Your task to perform on an android device: Search for Italian restaurants on Maps Image 0: 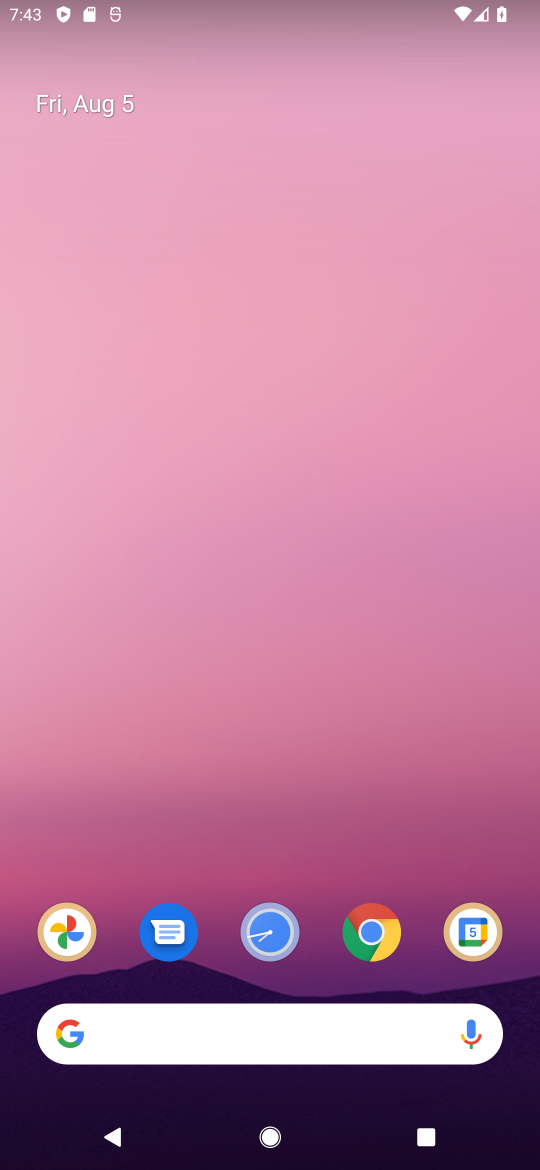
Step 0: drag from (346, 618) to (367, 22)
Your task to perform on an android device: Search for Italian restaurants on Maps Image 1: 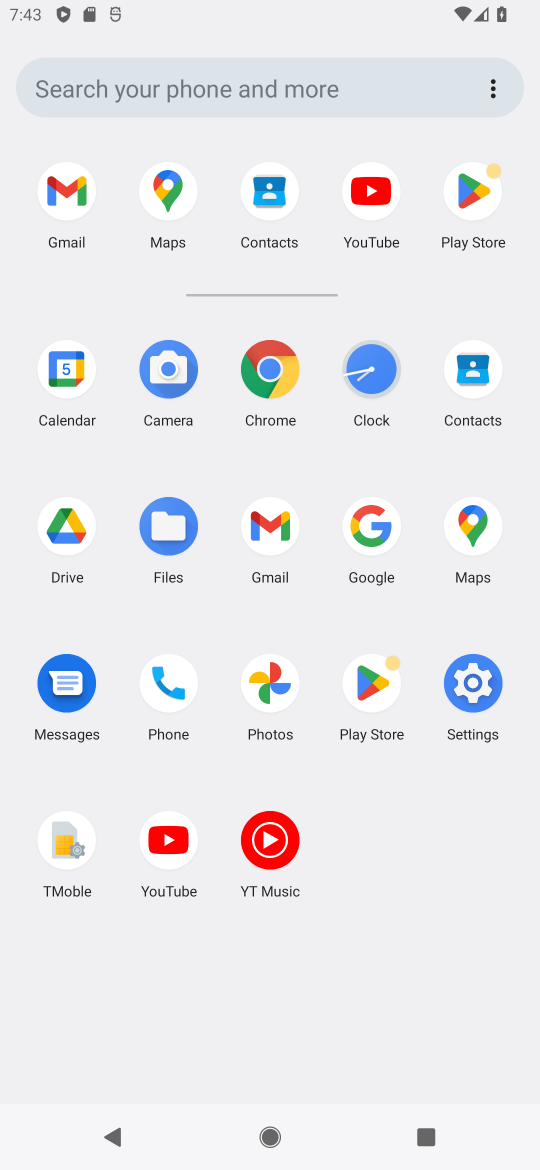
Step 1: click (476, 523)
Your task to perform on an android device: Search for Italian restaurants on Maps Image 2: 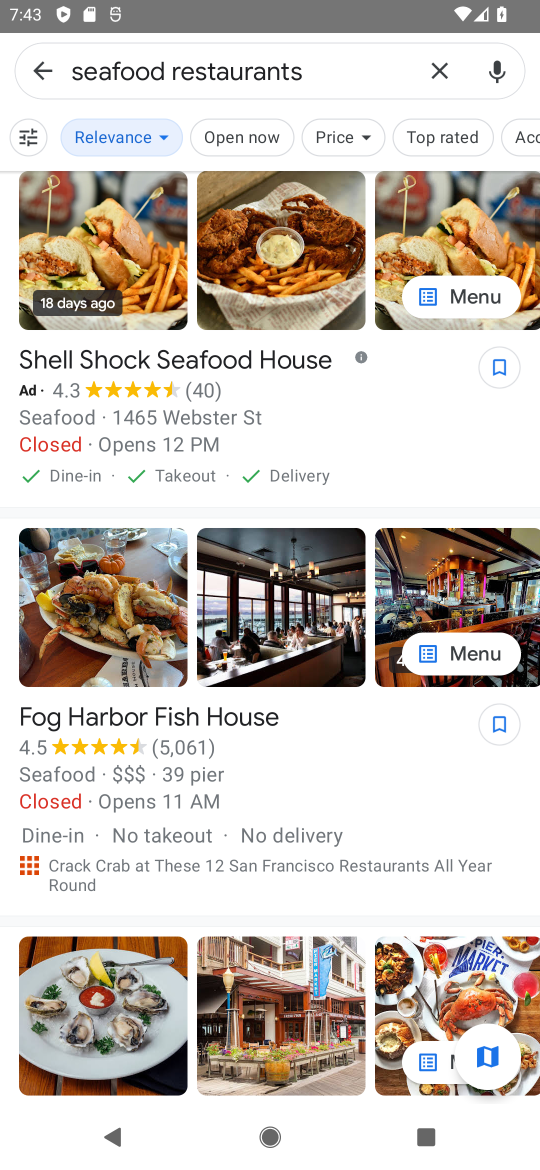
Step 2: click (254, 83)
Your task to perform on an android device: Search for Italian restaurants on Maps Image 3: 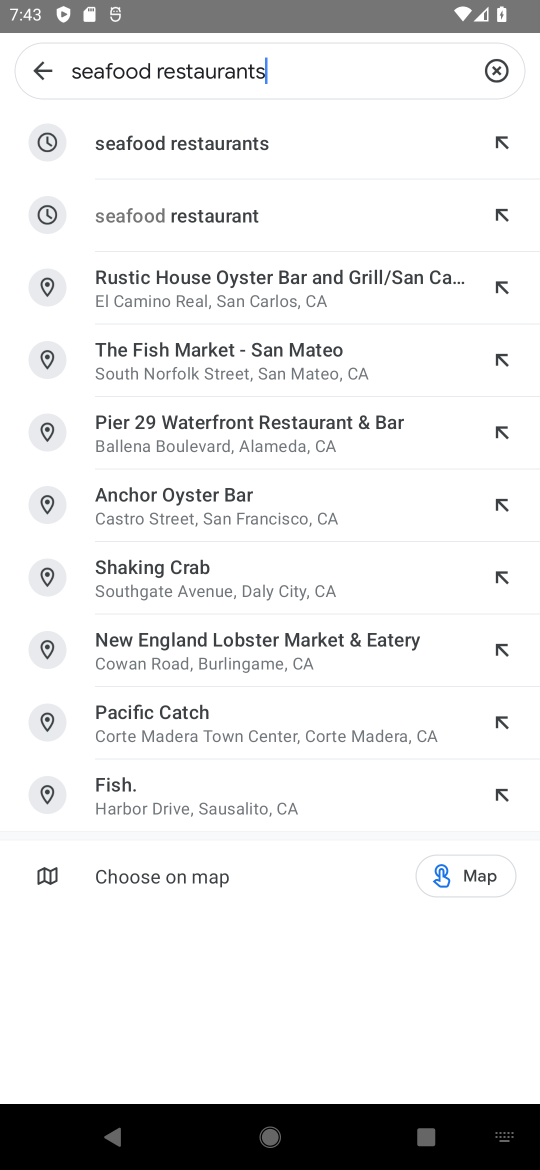
Step 3: click (490, 69)
Your task to perform on an android device: Search for Italian restaurants on Maps Image 4: 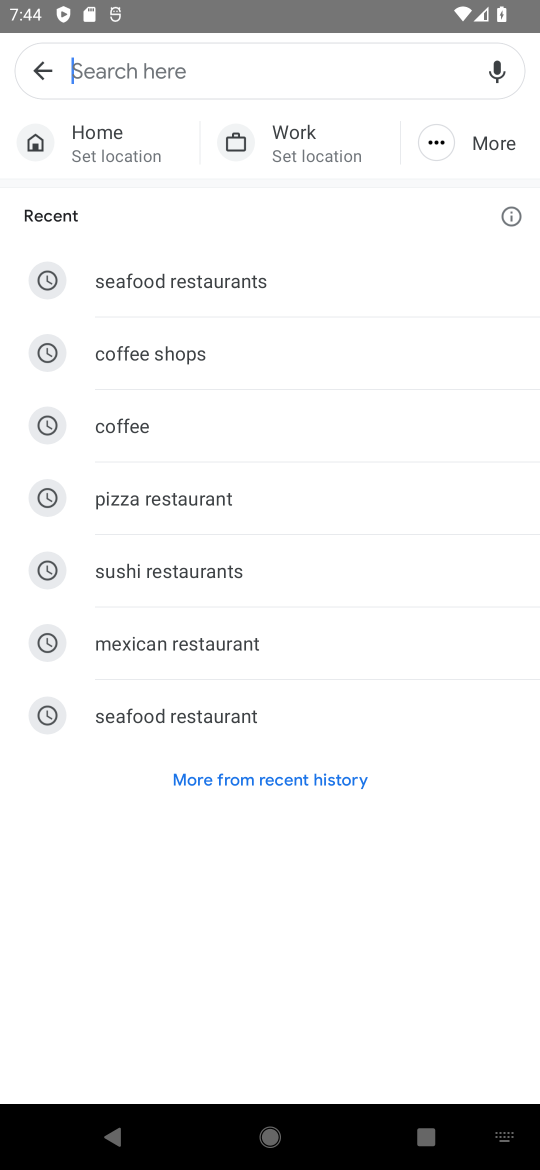
Step 4: type "Italian restaurants"
Your task to perform on an android device: Search for Italian restaurants on Maps Image 5: 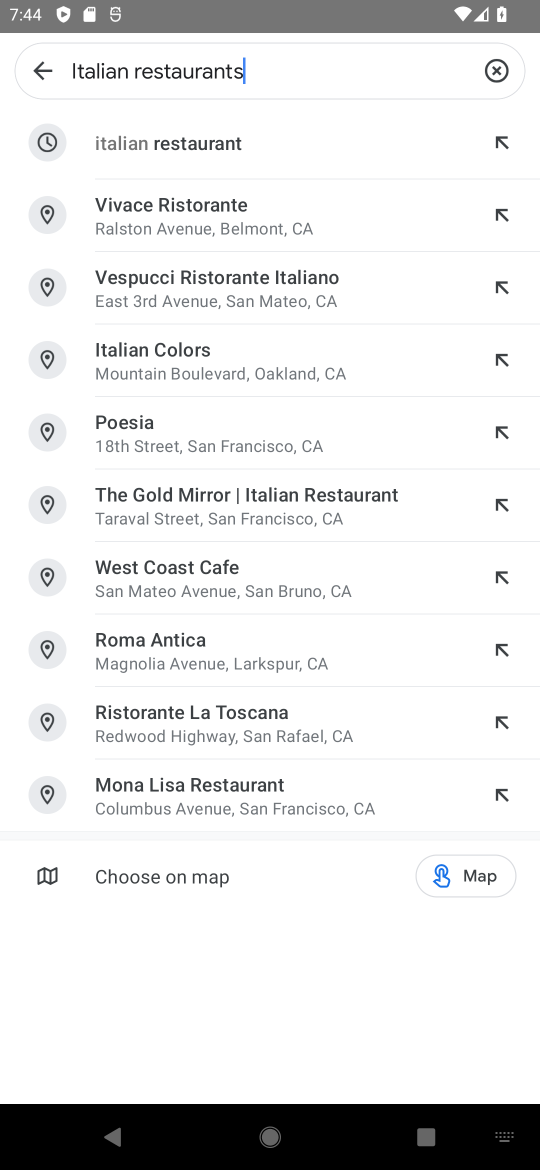
Step 5: press enter
Your task to perform on an android device: Search for Italian restaurants on Maps Image 6: 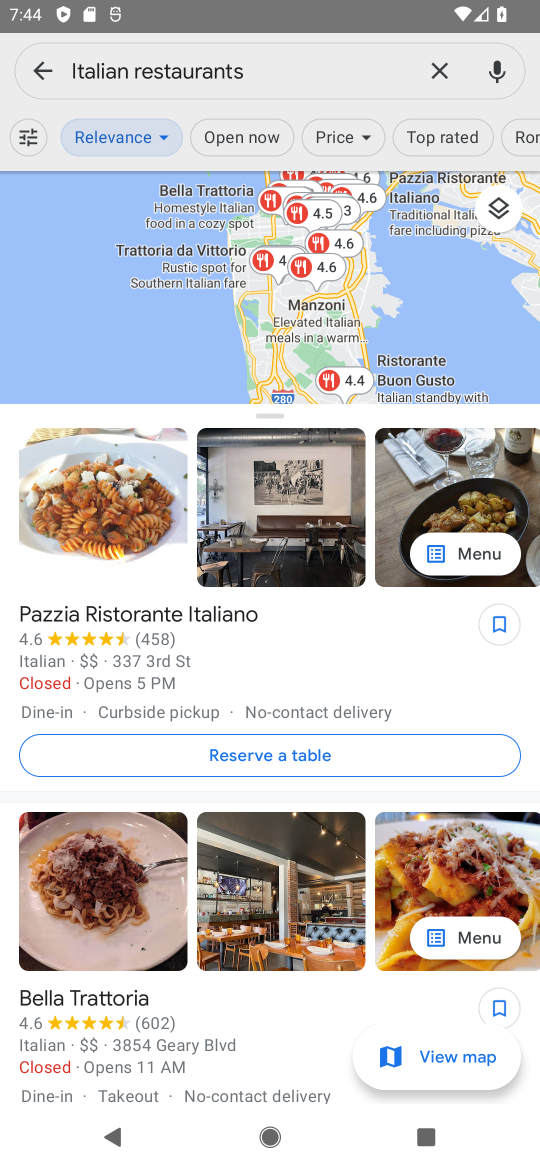
Step 6: task complete